Your task to perform on an android device: What's the weather going to be this weekend? Image 0: 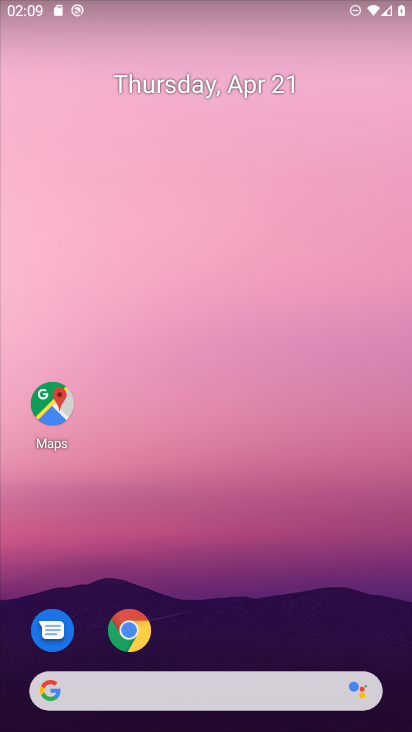
Step 0: click (123, 627)
Your task to perform on an android device: What's the weather going to be this weekend? Image 1: 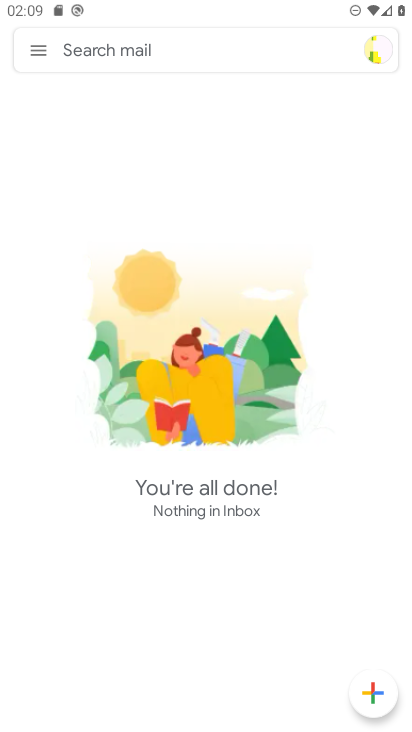
Step 1: press home button
Your task to perform on an android device: What's the weather going to be this weekend? Image 2: 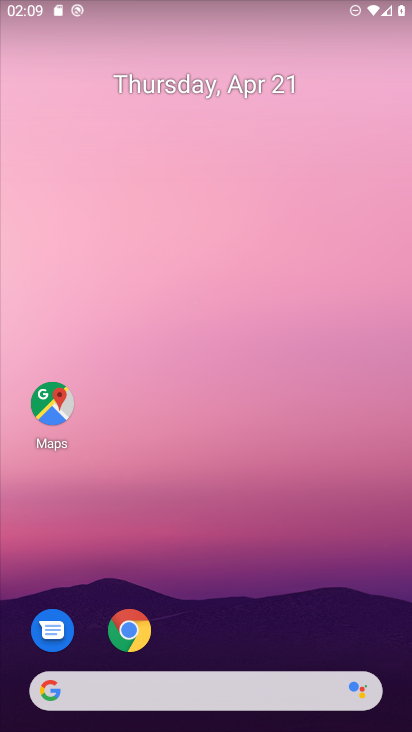
Step 2: click (192, 696)
Your task to perform on an android device: What's the weather going to be this weekend? Image 3: 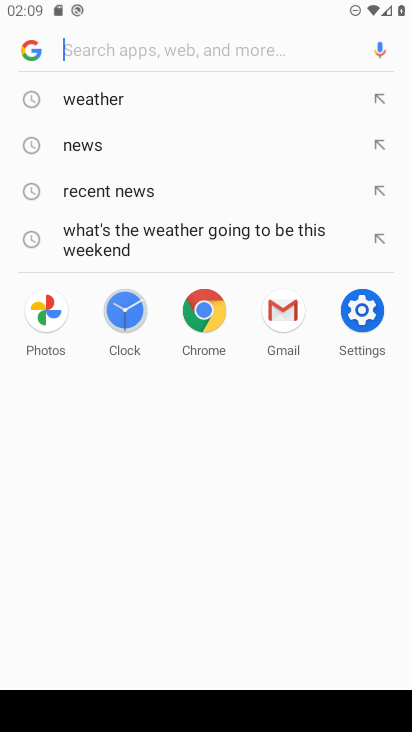
Step 3: click (243, 90)
Your task to perform on an android device: What's the weather going to be this weekend? Image 4: 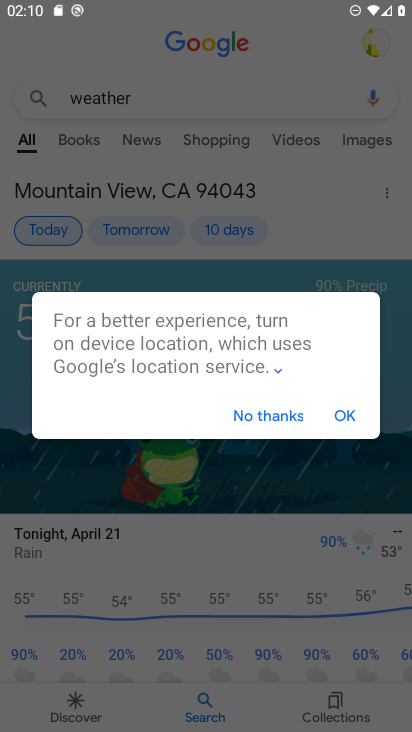
Step 4: click (354, 413)
Your task to perform on an android device: What's the weather going to be this weekend? Image 5: 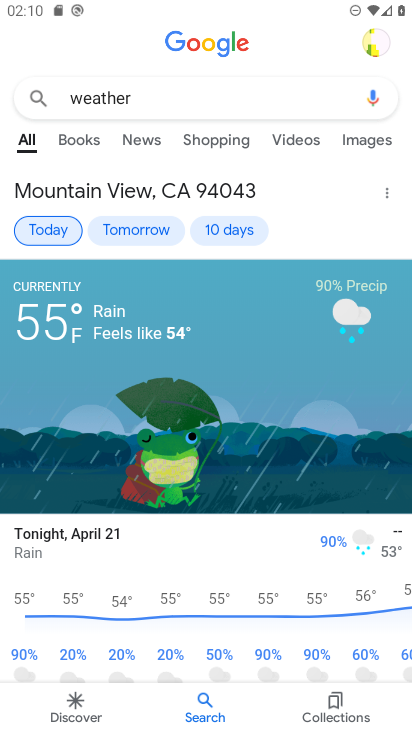
Step 5: click (224, 229)
Your task to perform on an android device: What's the weather going to be this weekend? Image 6: 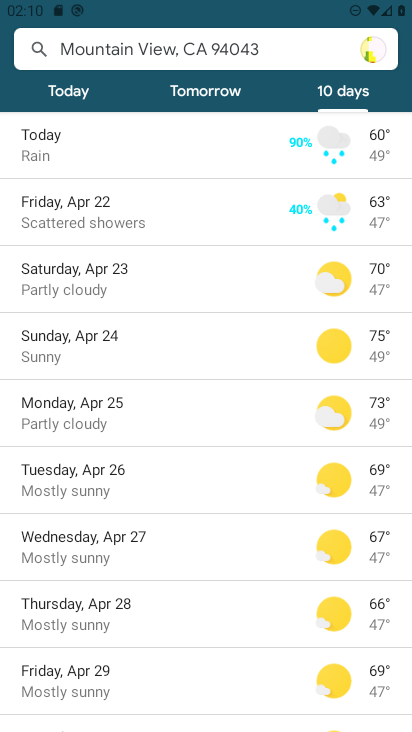
Step 6: task complete